Your task to perform on an android device: remove spam from my inbox in the gmail app Image 0: 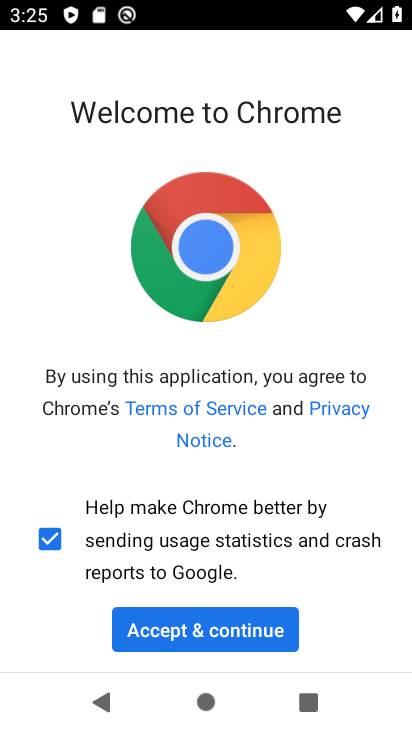
Step 0: press home button
Your task to perform on an android device: remove spam from my inbox in the gmail app Image 1: 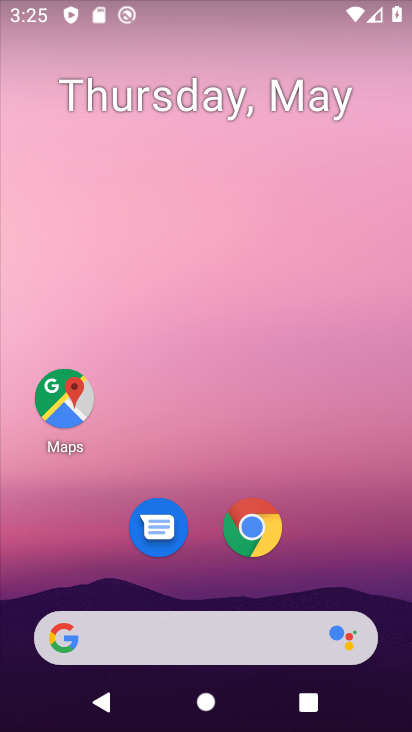
Step 1: drag from (395, 604) to (357, 73)
Your task to perform on an android device: remove spam from my inbox in the gmail app Image 2: 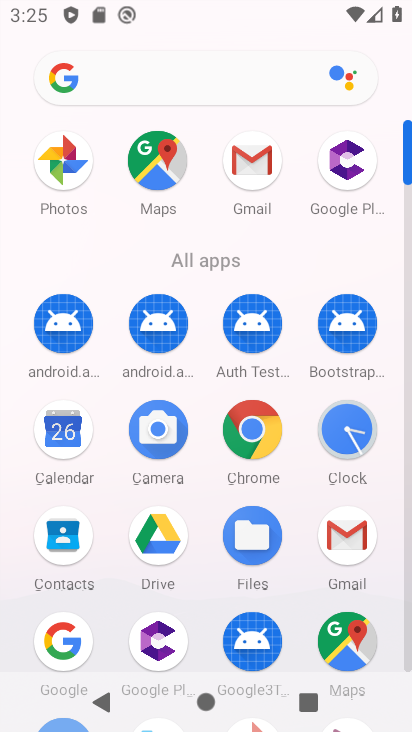
Step 2: click (344, 531)
Your task to perform on an android device: remove spam from my inbox in the gmail app Image 3: 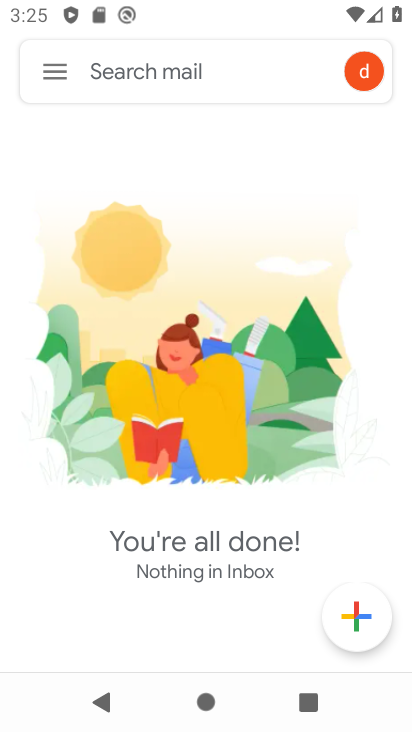
Step 3: click (56, 63)
Your task to perform on an android device: remove spam from my inbox in the gmail app Image 4: 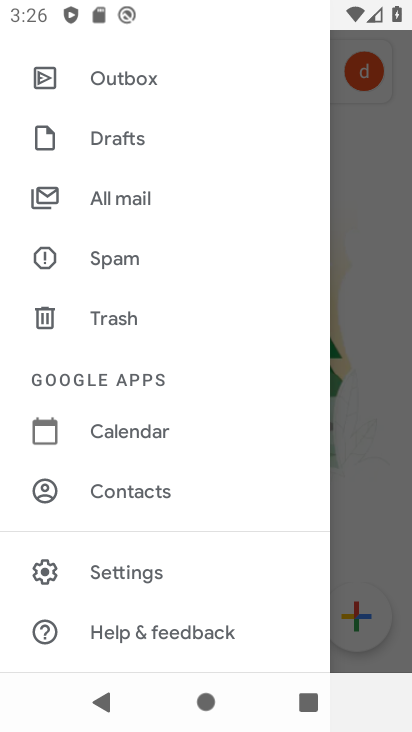
Step 4: click (112, 245)
Your task to perform on an android device: remove spam from my inbox in the gmail app Image 5: 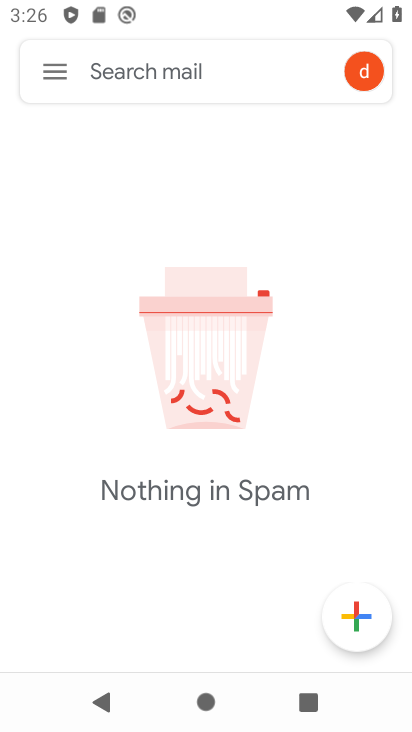
Step 5: task complete